Your task to perform on an android device: turn on location history Image 0: 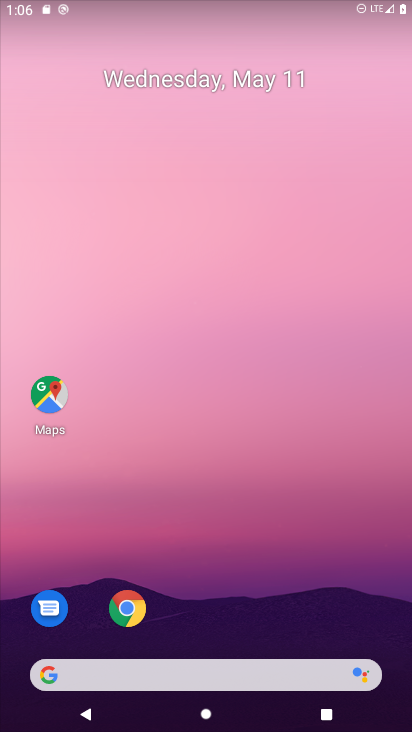
Step 0: drag from (324, 612) to (364, 50)
Your task to perform on an android device: turn on location history Image 1: 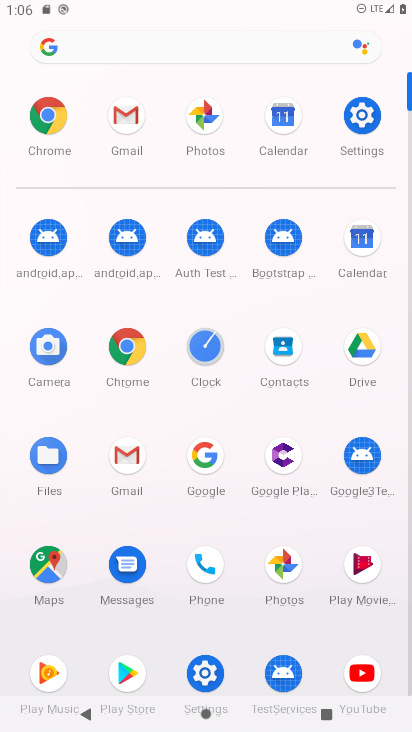
Step 1: click (363, 110)
Your task to perform on an android device: turn on location history Image 2: 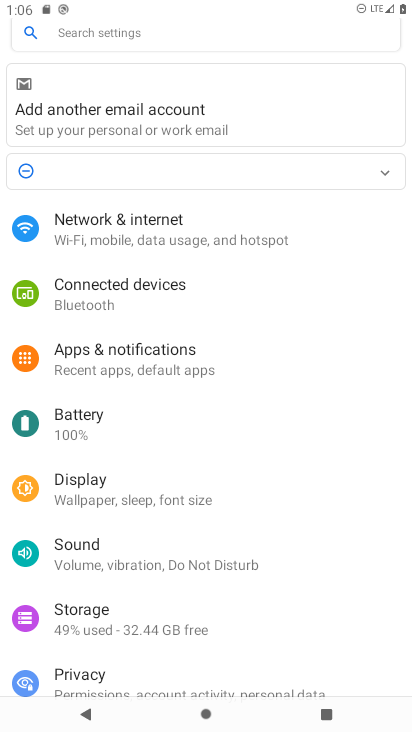
Step 2: drag from (252, 470) to (257, 146)
Your task to perform on an android device: turn on location history Image 3: 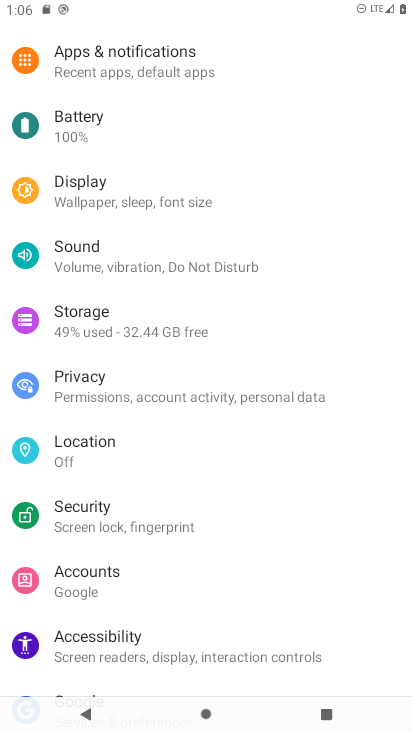
Step 3: click (140, 450)
Your task to perform on an android device: turn on location history Image 4: 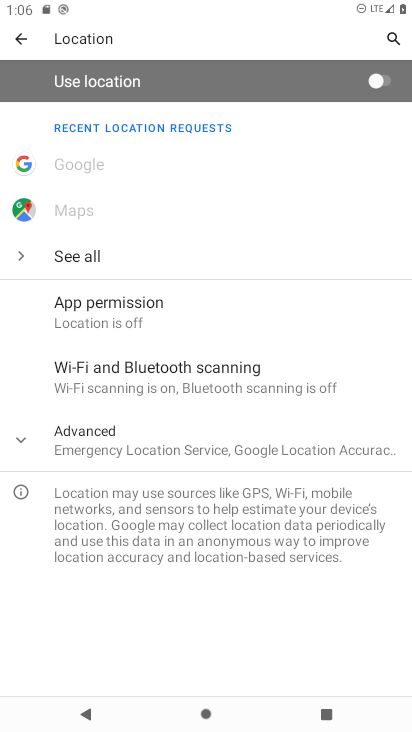
Step 4: click (25, 439)
Your task to perform on an android device: turn on location history Image 5: 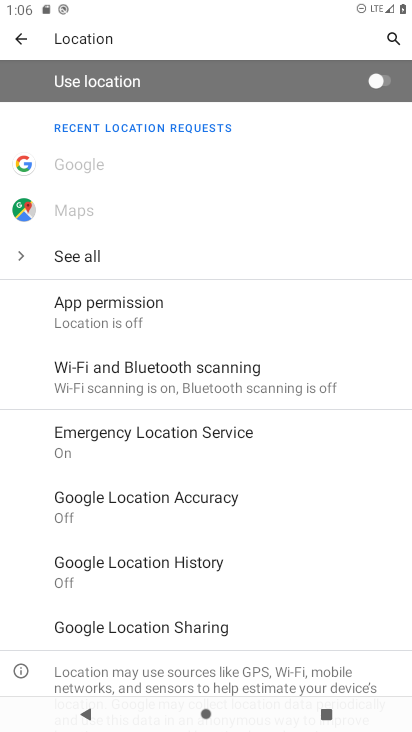
Step 5: click (150, 569)
Your task to perform on an android device: turn on location history Image 6: 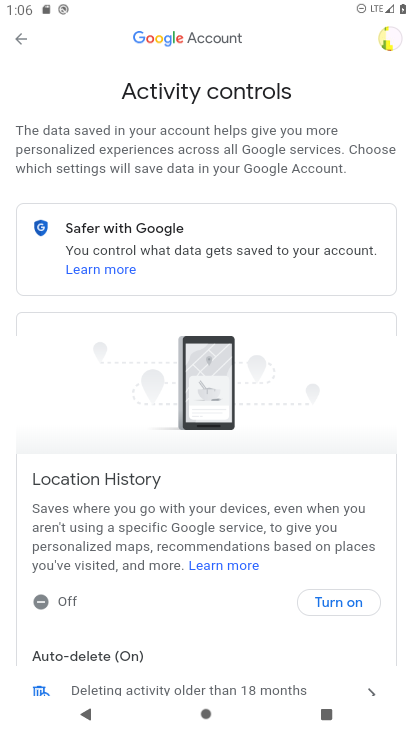
Step 6: click (328, 598)
Your task to perform on an android device: turn on location history Image 7: 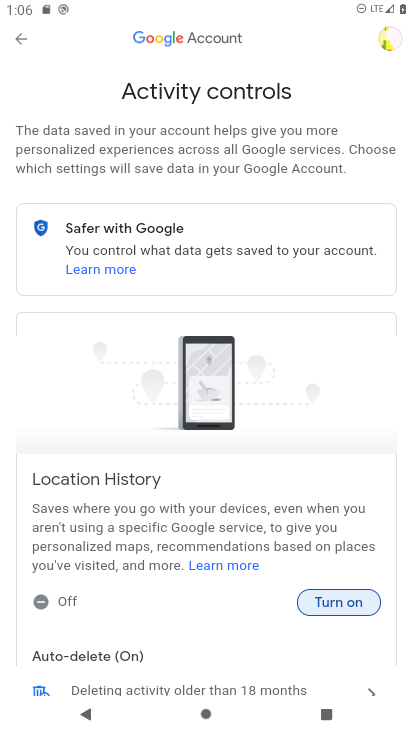
Step 7: click (328, 598)
Your task to perform on an android device: turn on location history Image 8: 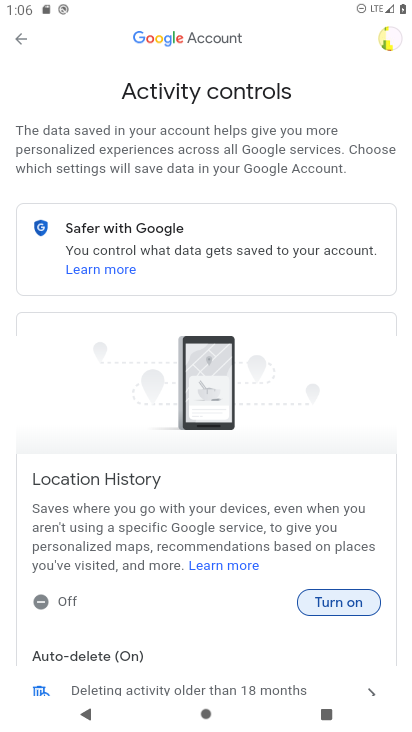
Step 8: click (328, 596)
Your task to perform on an android device: turn on location history Image 9: 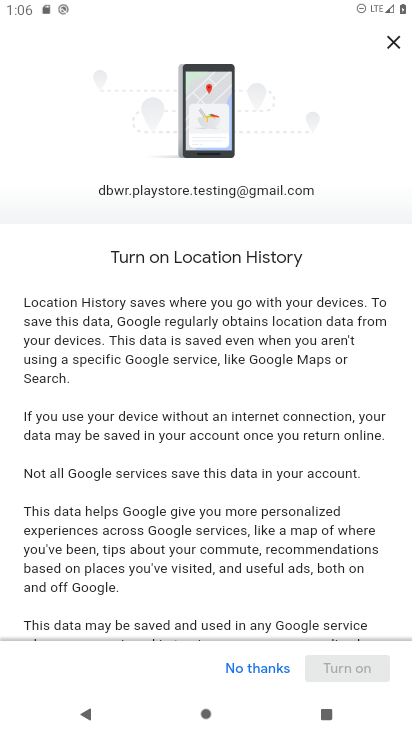
Step 9: drag from (333, 441) to (345, 148)
Your task to perform on an android device: turn on location history Image 10: 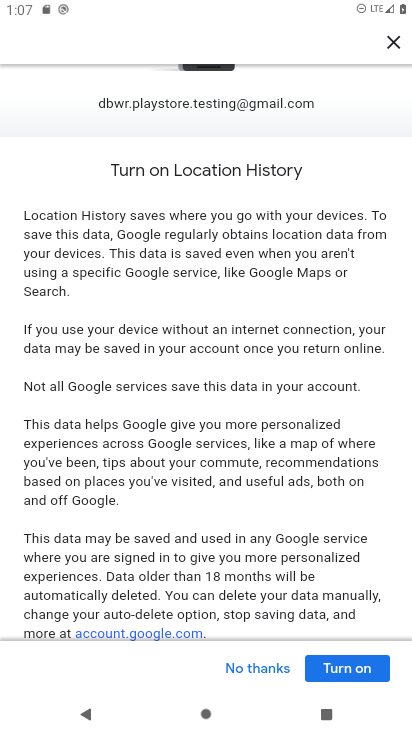
Step 10: click (348, 665)
Your task to perform on an android device: turn on location history Image 11: 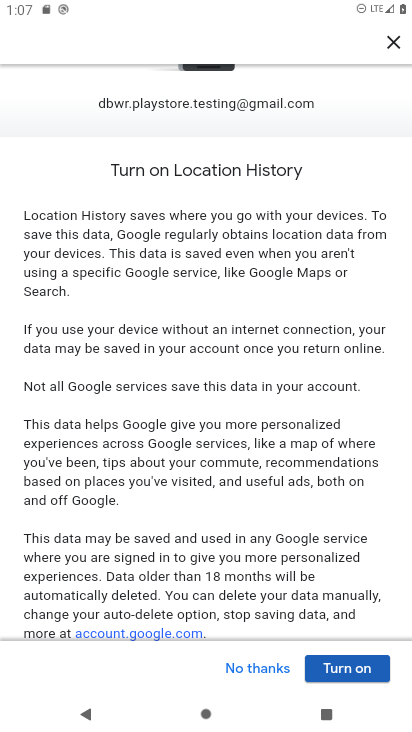
Step 11: click (348, 664)
Your task to perform on an android device: turn on location history Image 12: 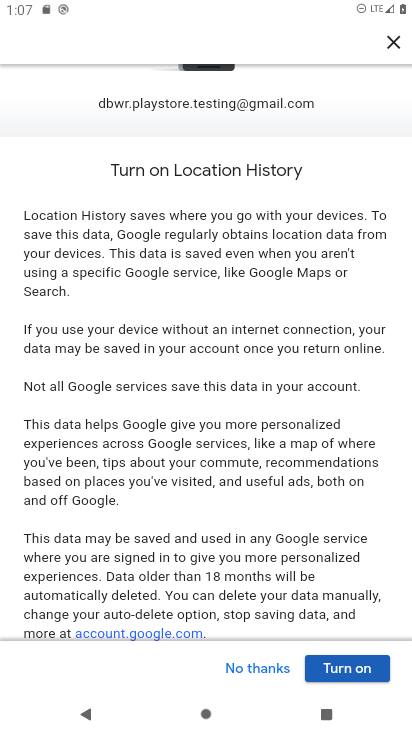
Step 12: click (364, 669)
Your task to perform on an android device: turn on location history Image 13: 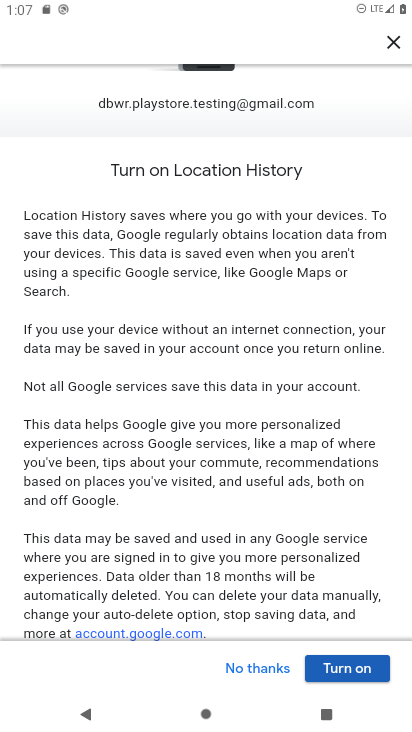
Step 13: click (357, 665)
Your task to perform on an android device: turn on location history Image 14: 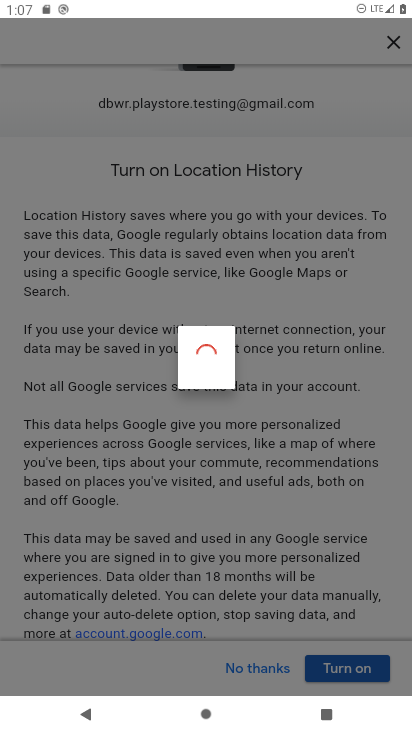
Step 14: click (357, 665)
Your task to perform on an android device: turn on location history Image 15: 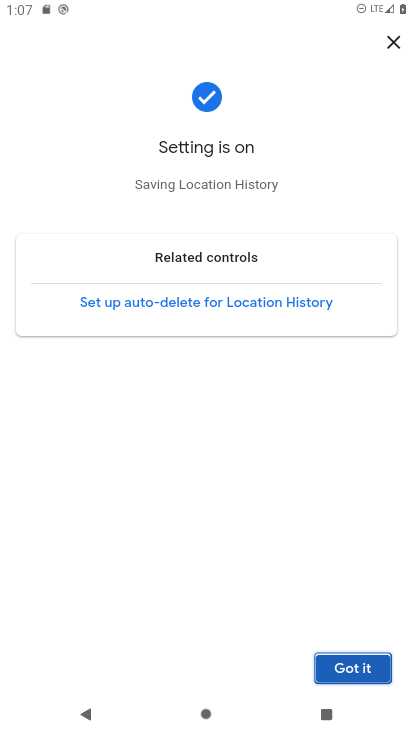
Step 15: click (357, 664)
Your task to perform on an android device: turn on location history Image 16: 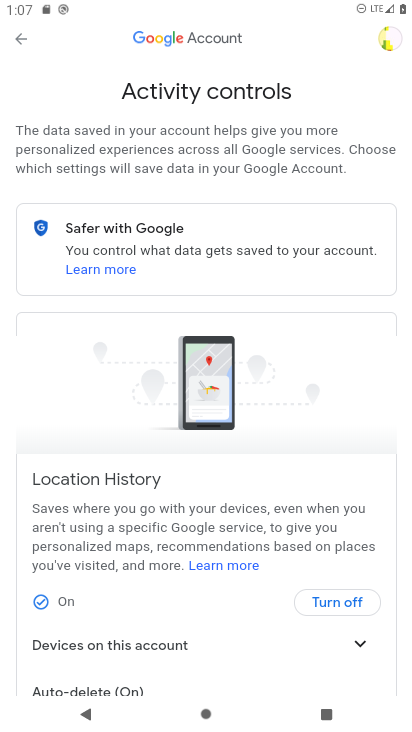
Step 16: task complete